Your task to perform on an android device: Open Youtube and go to the subscriptions tab Image 0: 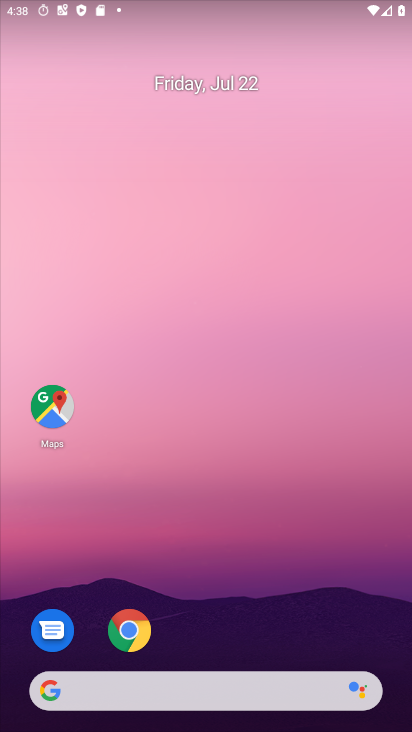
Step 0: drag from (197, 676) to (245, 41)
Your task to perform on an android device: Open Youtube and go to the subscriptions tab Image 1: 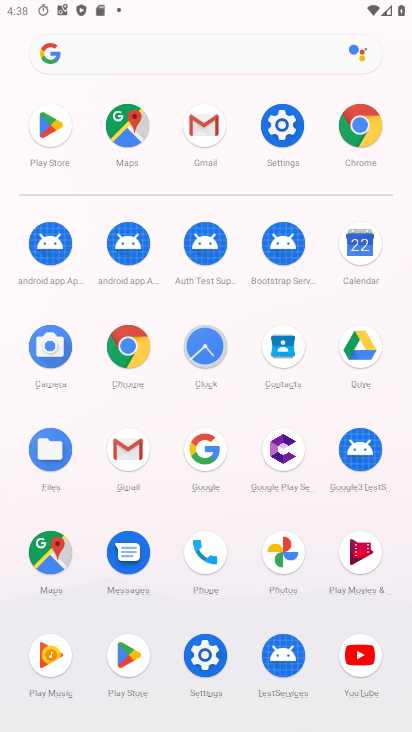
Step 1: click (342, 655)
Your task to perform on an android device: Open Youtube and go to the subscriptions tab Image 2: 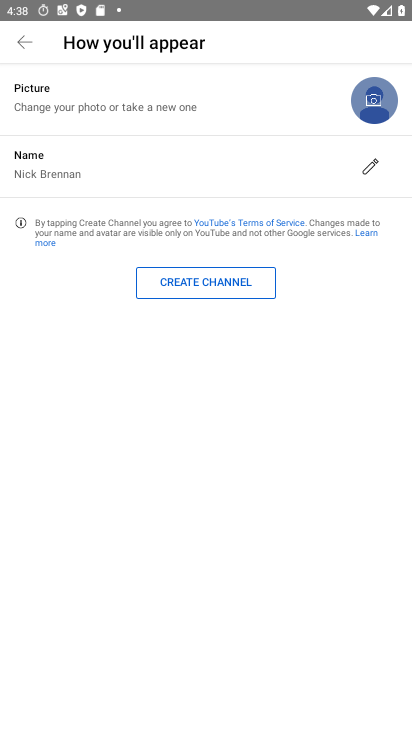
Step 2: press back button
Your task to perform on an android device: Open Youtube and go to the subscriptions tab Image 3: 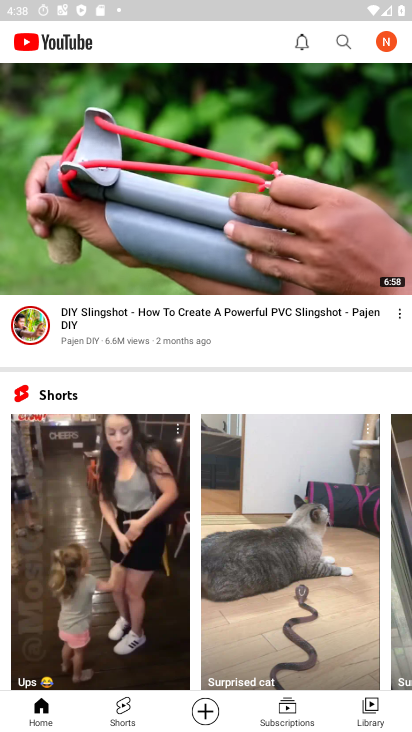
Step 3: click (295, 711)
Your task to perform on an android device: Open Youtube and go to the subscriptions tab Image 4: 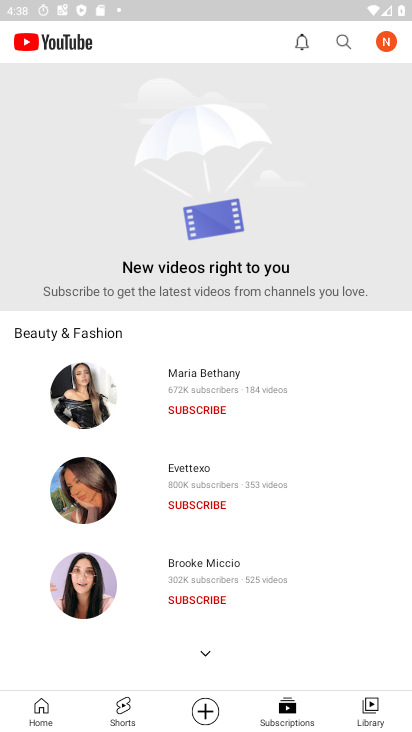
Step 4: task complete